Your task to perform on an android device: turn off picture-in-picture Image 0: 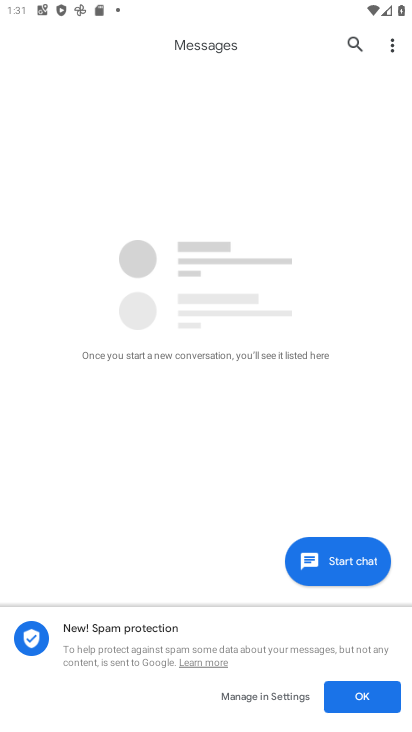
Step 0: press home button
Your task to perform on an android device: turn off picture-in-picture Image 1: 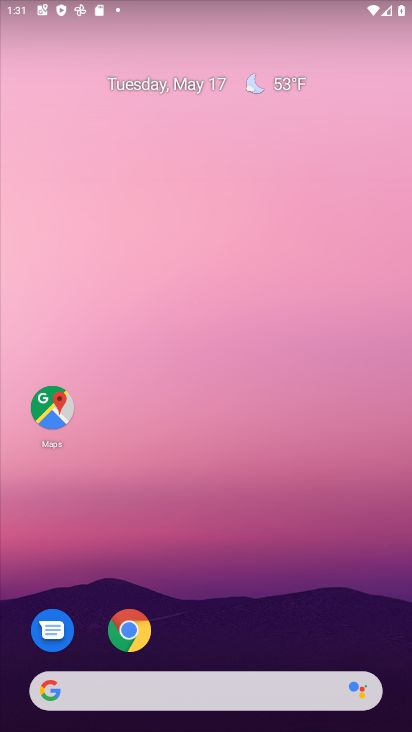
Step 1: drag from (281, 661) to (281, 282)
Your task to perform on an android device: turn off picture-in-picture Image 2: 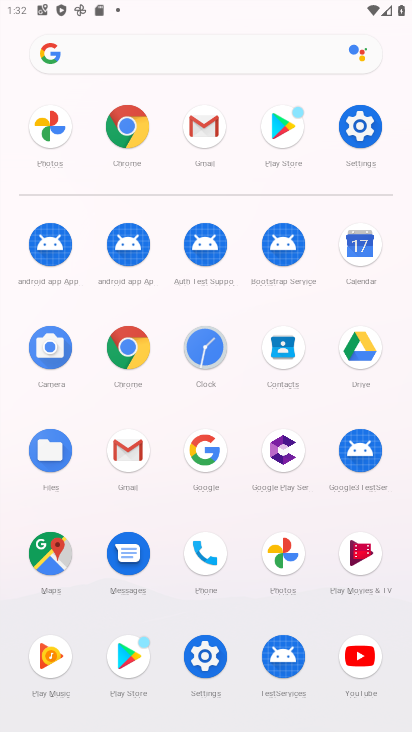
Step 2: click (360, 147)
Your task to perform on an android device: turn off picture-in-picture Image 3: 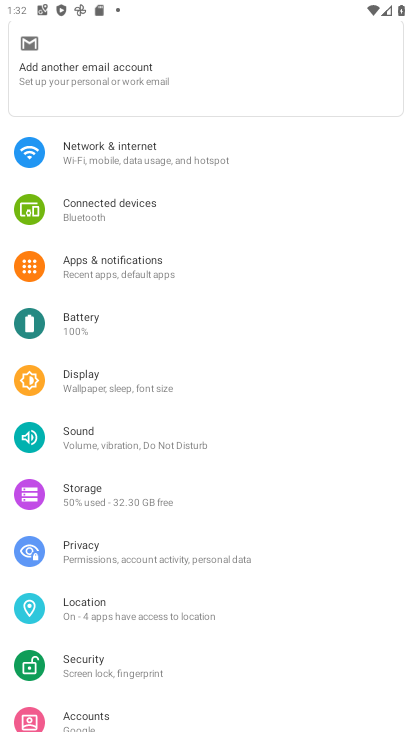
Step 3: drag from (178, 458) to (182, 315)
Your task to perform on an android device: turn off picture-in-picture Image 4: 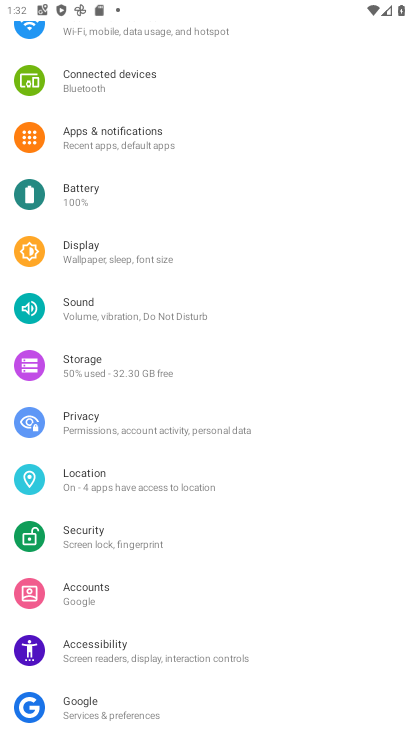
Step 4: drag from (164, 283) to (141, 599)
Your task to perform on an android device: turn off picture-in-picture Image 5: 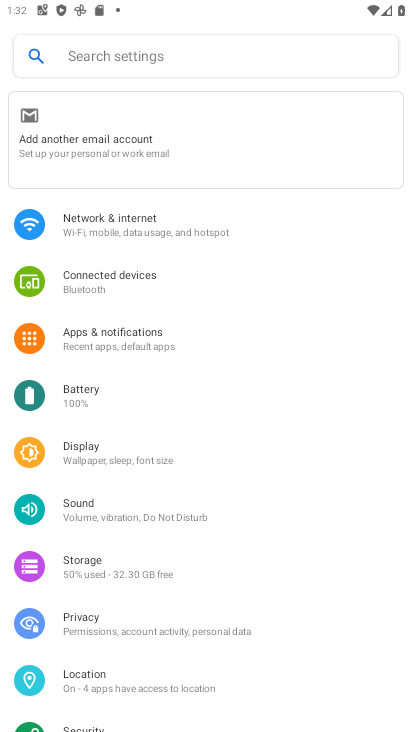
Step 5: click (158, 352)
Your task to perform on an android device: turn off picture-in-picture Image 6: 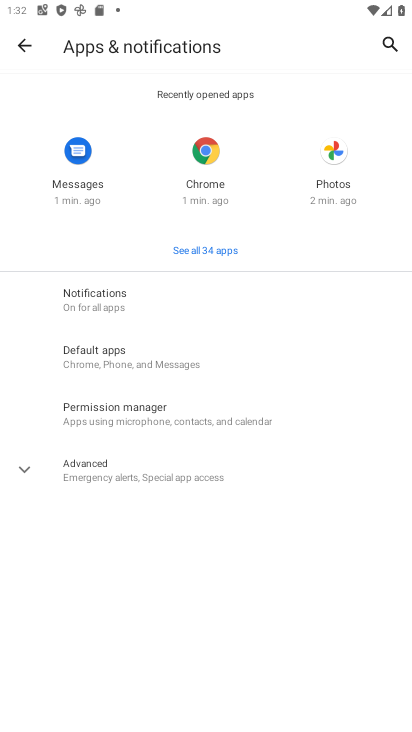
Step 6: click (144, 478)
Your task to perform on an android device: turn off picture-in-picture Image 7: 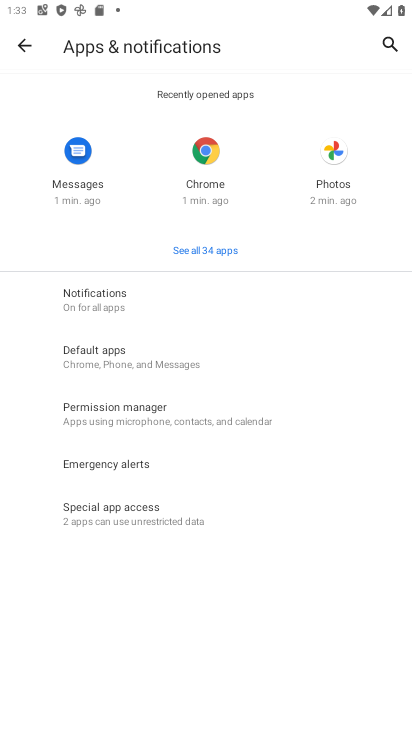
Step 7: click (173, 524)
Your task to perform on an android device: turn off picture-in-picture Image 8: 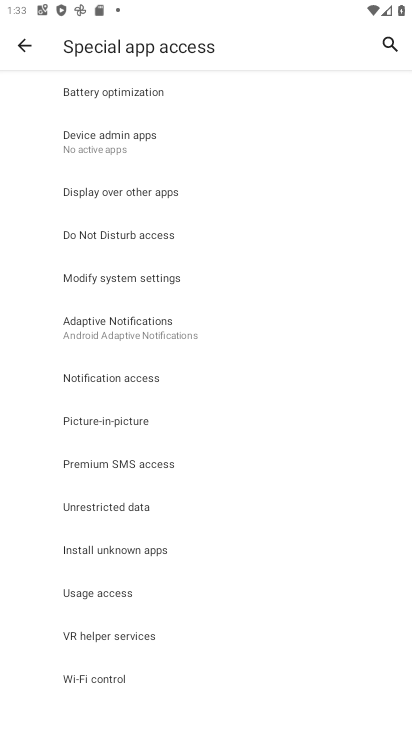
Step 8: click (152, 420)
Your task to perform on an android device: turn off picture-in-picture Image 9: 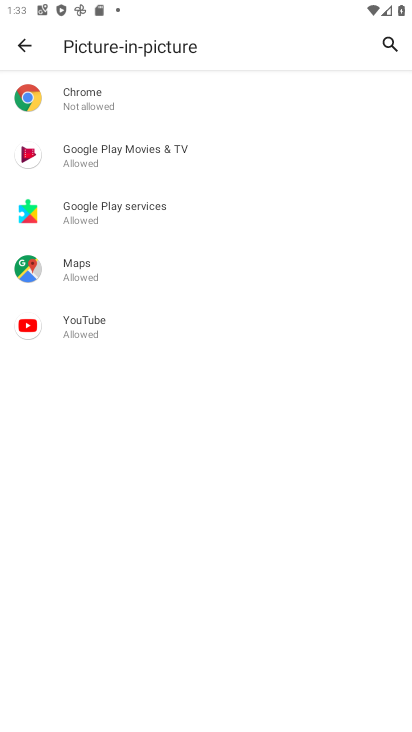
Step 9: task complete